Your task to perform on an android device: Go to Amazon Image 0: 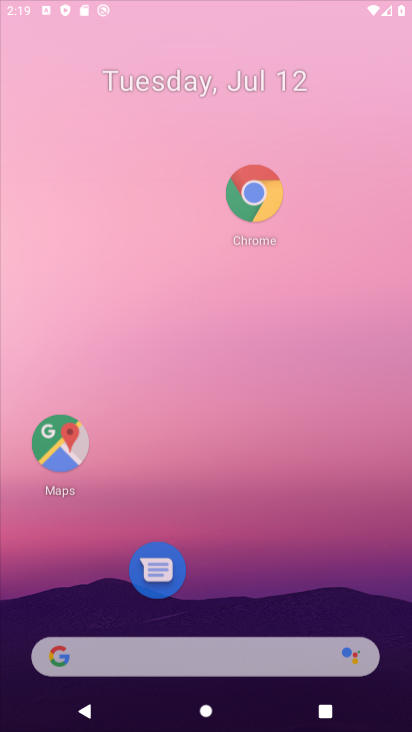
Step 0: click (133, 660)
Your task to perform on an android device: Go to Amazon Image 1: 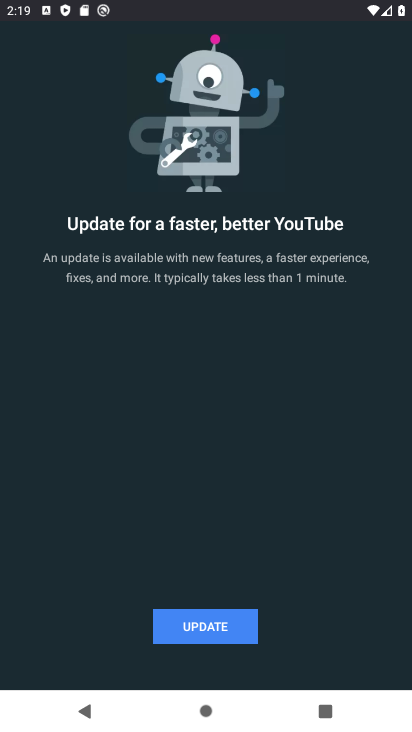
Step 1: press home button
Your task to perform on an android device: Go to Amazon Image 2: 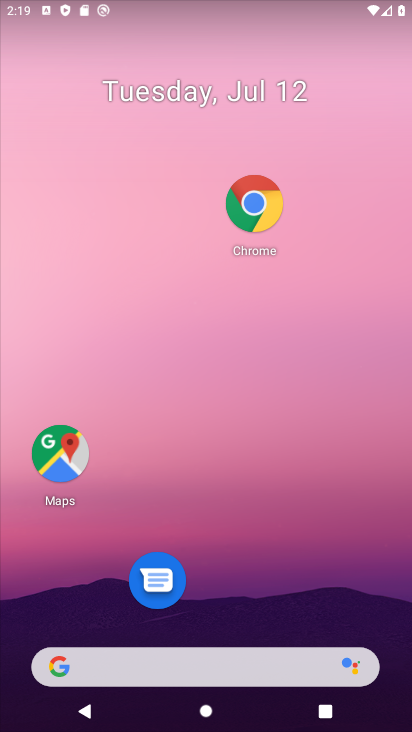
Step 2: click (273, 213)
Your task to perform on an android device: Go to Amazon Image 3: 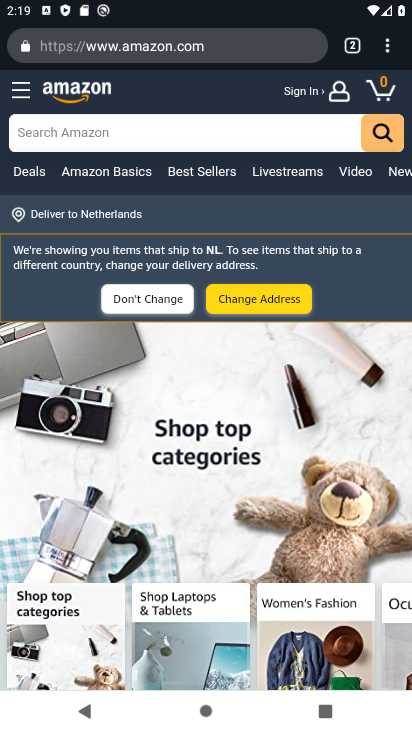
Step 3: task complete